Your task to perform on an android device: turn off picture-in-picture Image 0: 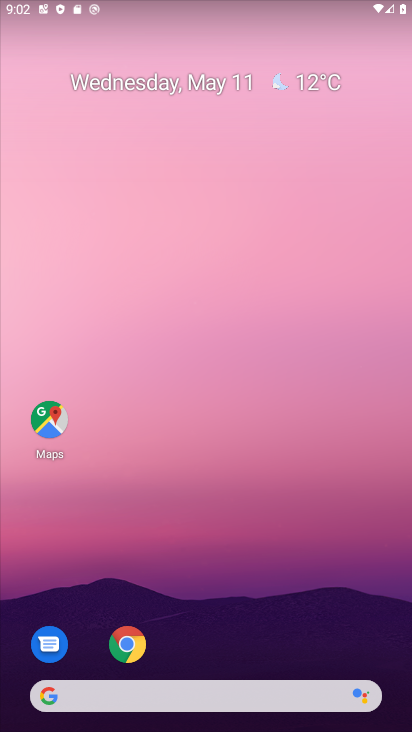
Step 0: drag from (221, 635) to (194, 119)
Your task to perform on an android device: turn off picture-in-picture Image 1: 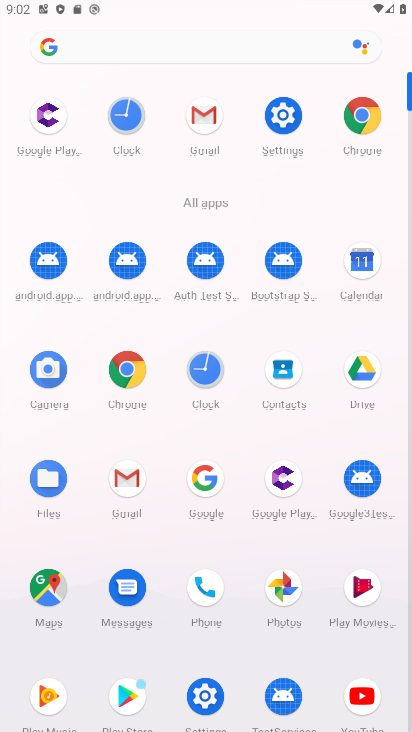
Step 1: click (202, 713)
Your task to perform on an android device: turn off picture-in-picture Image 2: 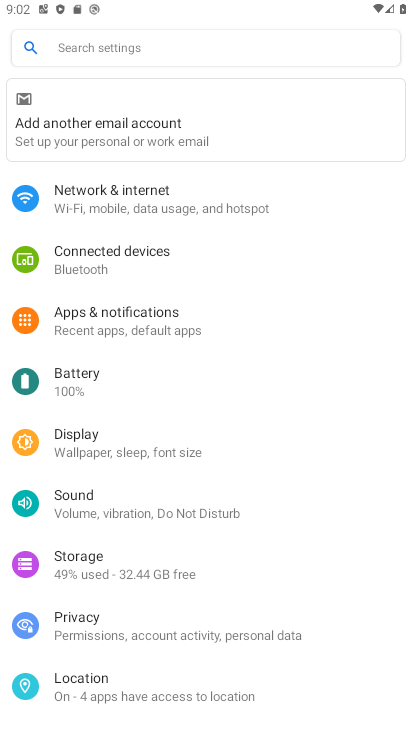
Step 2: click (163, 325)
Your task to perform on an android device: turn off picture-in-picture Image 3: 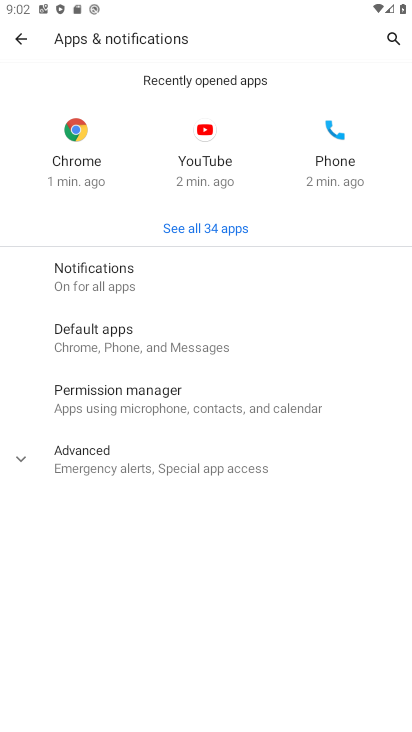
Step 3: click (141, 468)
Your task to perform on an android device: turn off picture-in-picture Image 4: 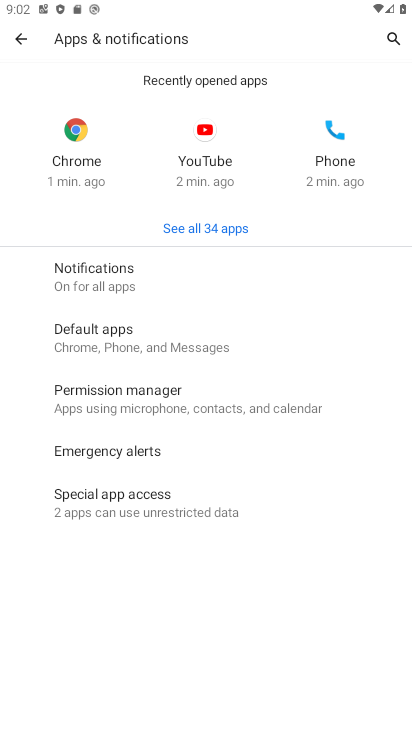
Step 4: click (137, 510)
Your task to perform on an android device: turn off picture-in-picture Image 5: 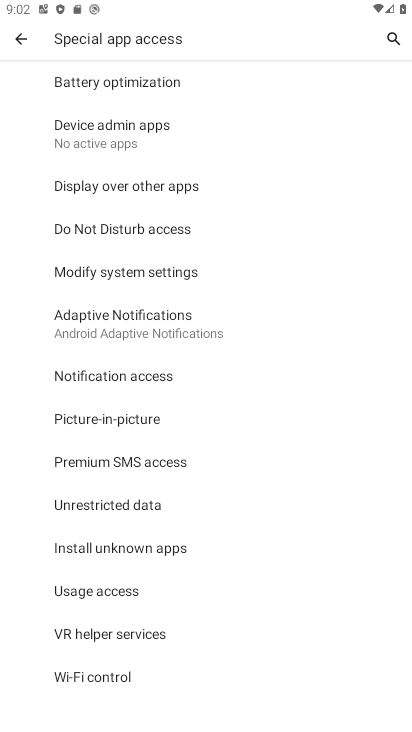
Step 5: click (134, 421)
Your task to perform on an android device: turn off picture-in-picture Image 6: 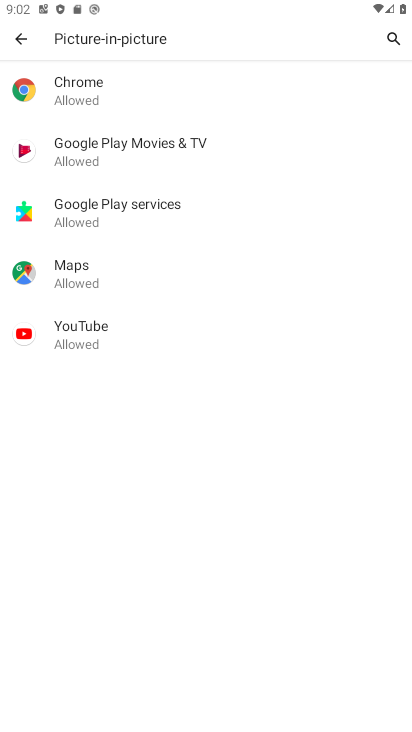
Step 6: click (137, 280)
Your task to perform on an android device: turn off picture-in-picture Image 7: 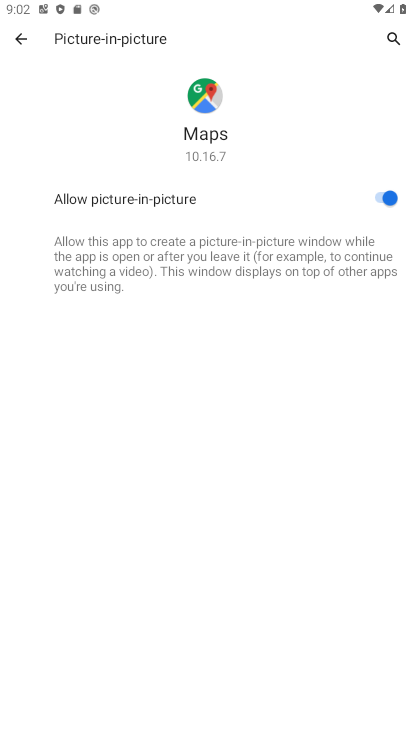
Step 7: click (387, 202)
Your task to perform on an android device: turn off picture-in-picture Image 8: 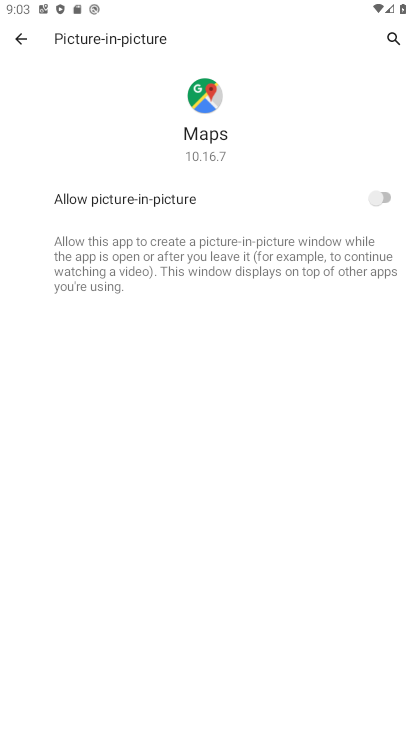
Step 8: task complete